Your task to perform on an android device: What is the recent news? Image 0: 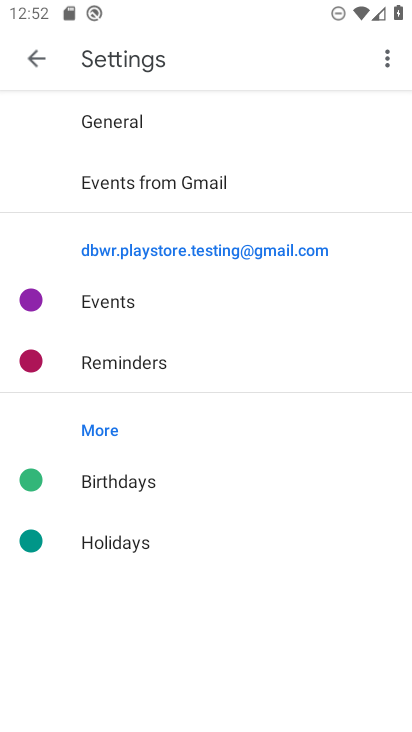
Step 0: press home button
Your task to perform on an android device: What is the recent news? Image 1: 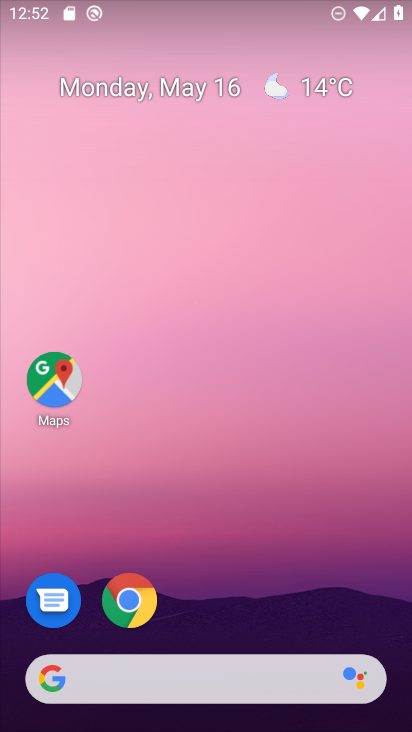
Step 1: task complete